Your task to perform on an android device: Open calendar and show me the first week of next month Image 0: 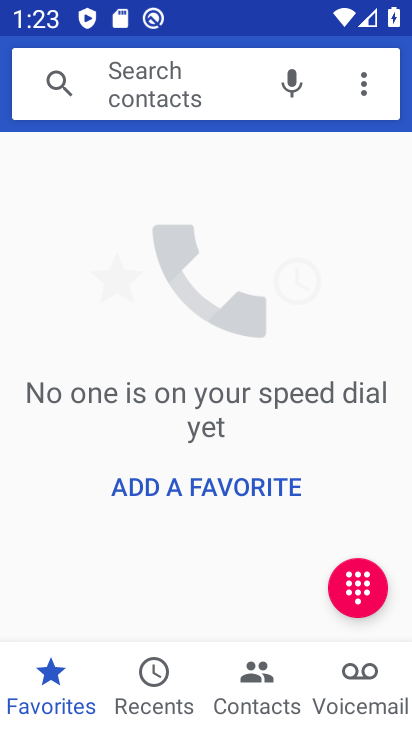
Step 0: press back button
Your task to perform on an android device: Open calendar and show me the first week of next month Image 1: 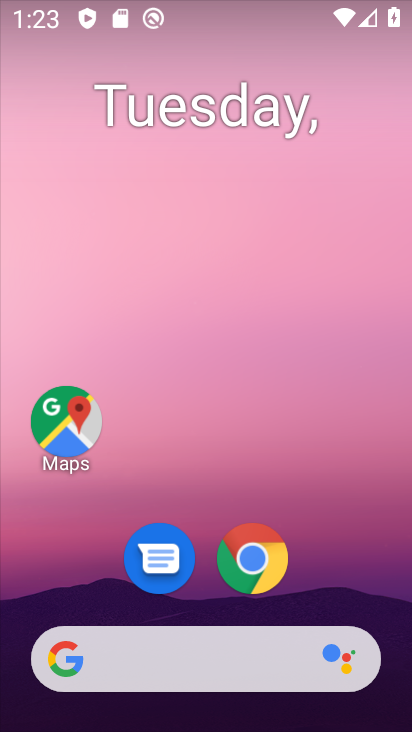
Step 1: drag from (187, 604) to (298, 65)
Your task to perform on an android device: Open calendar and show me the first week of next month Image 2: 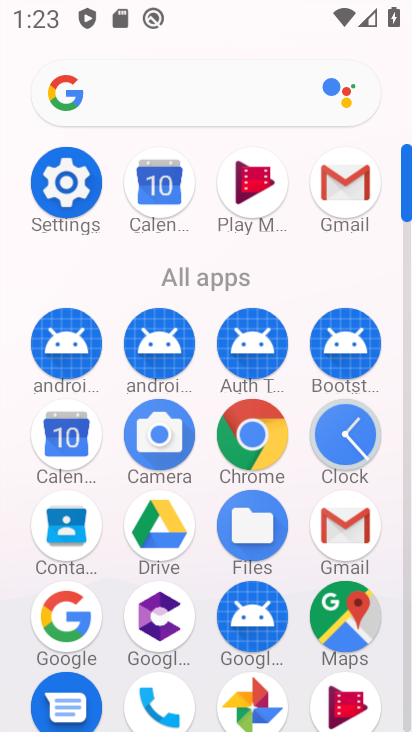
Step 2: click (65, 434)
Your task to perform on an android device: Open calendar and show me the first week of next month Image 3: 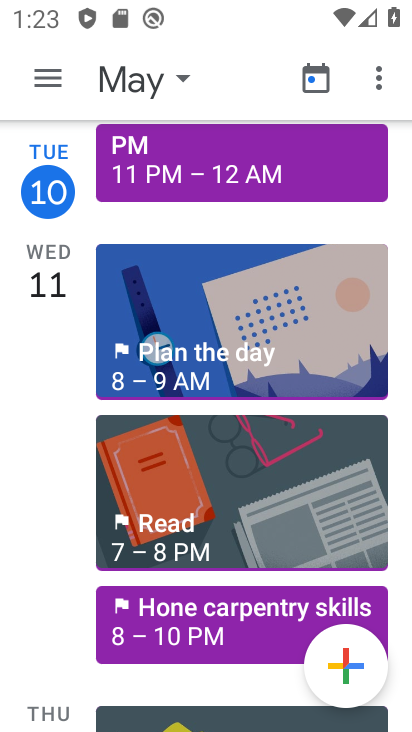
Step 3: click (157, 80)
Your task to perform on an android device: Open calendar and show me the first week of next month Image 4: 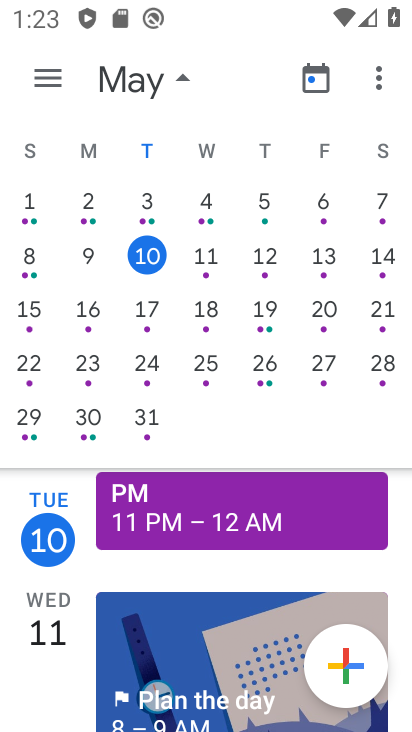
Step 4: drag from (337, 291) to (20, 257)
Your task to perform on an android device: Open calendar and show me the first week of next month Image 5: 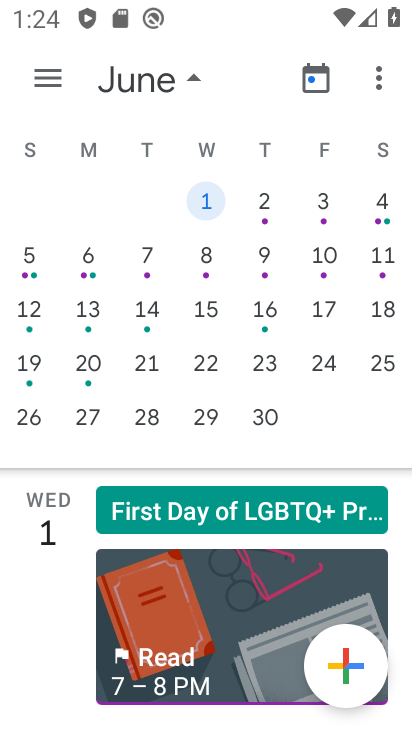
Step 5: click (209, 194)
Your task to perform on an android device: Open calendar and show me the first week of next month Image 6: 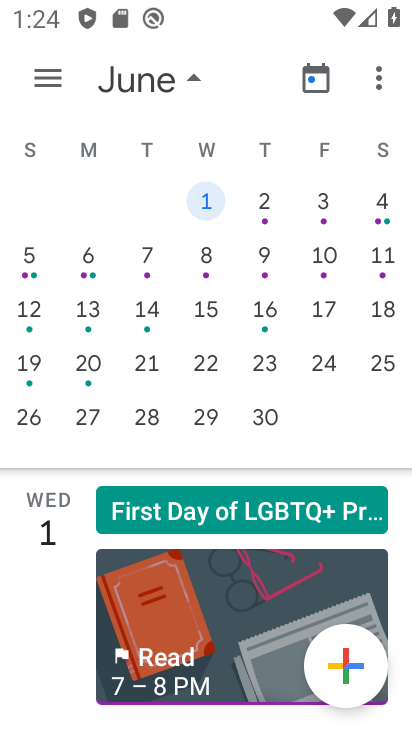
Step 6: task complete